Your task to perform on an android device: Go to location settings Image 0: 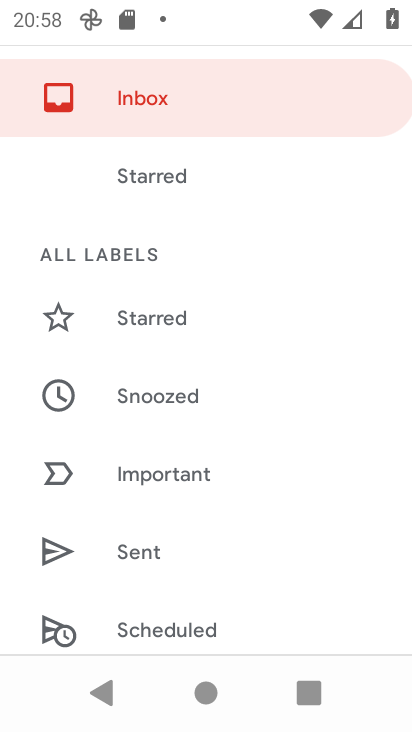
Step 0: drag from (279, 646) to (239, 299)
Your task to perform on an android device: Go to location settings Image 1: 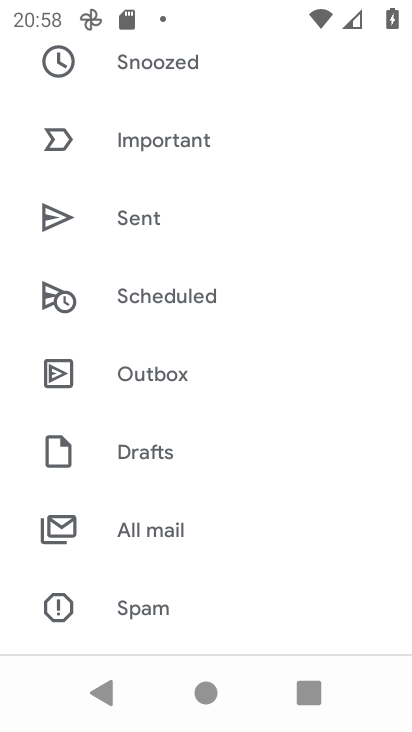
Step 1: press home button
Your task to perform on an android device: Go to location settings Image 2: 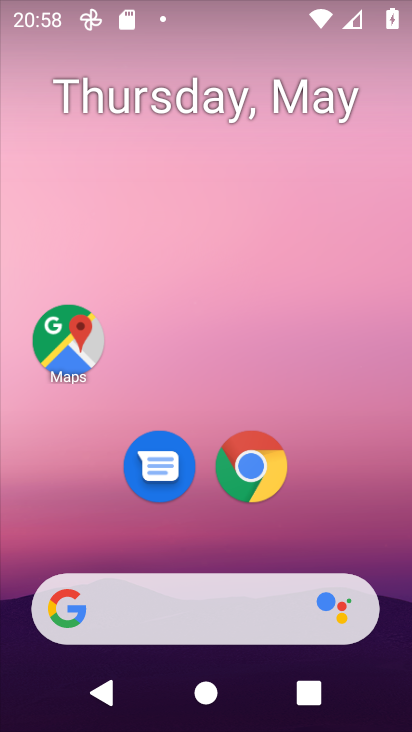
Step 2: drag from (359, 506) to (278, 49)
Your task to perform on an android device: Go to location settings Image 3: 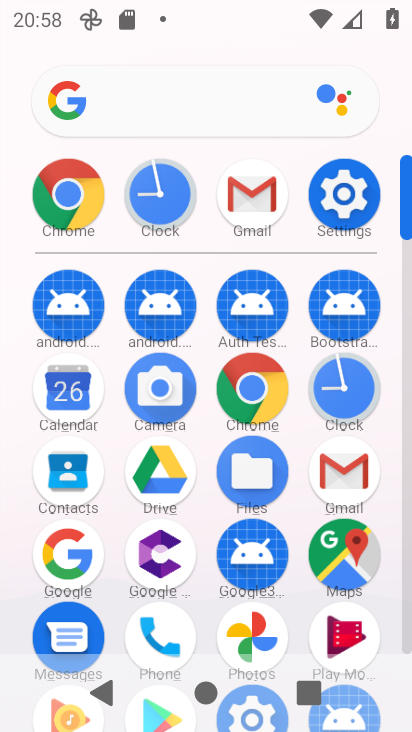
Step 3: click (331, 196)
Your task to perform on an android device: Go to location settings Image 4: 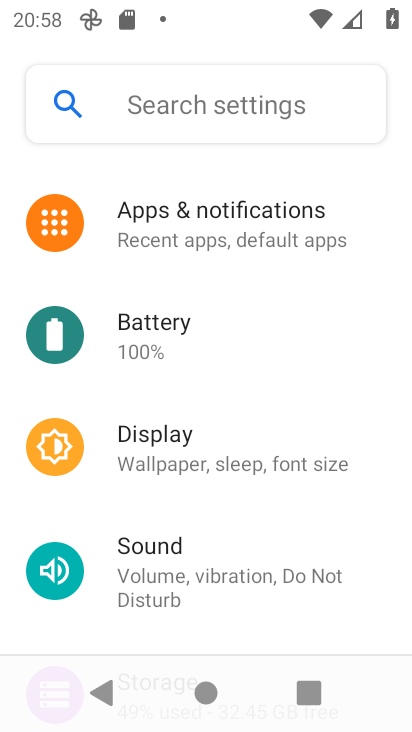
Step 4: drag from (219, 640) to (216, 491)
Your task to perform on an android device: Go to location settings Image 5: 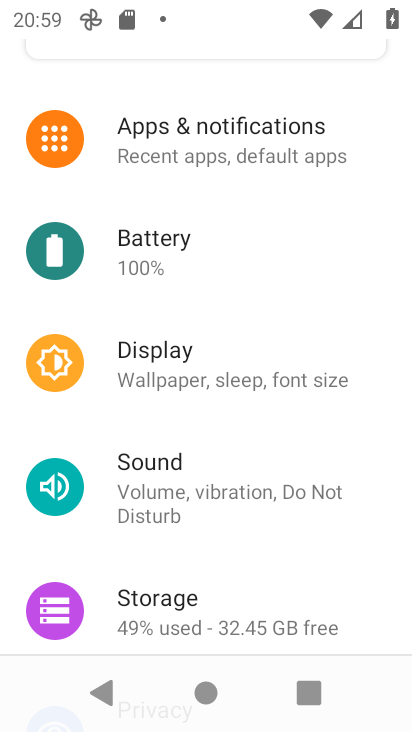
Step 5: drag from (225, 545) to (143, 192)
Your task to perform on an android device: Go to location settings Image 6: 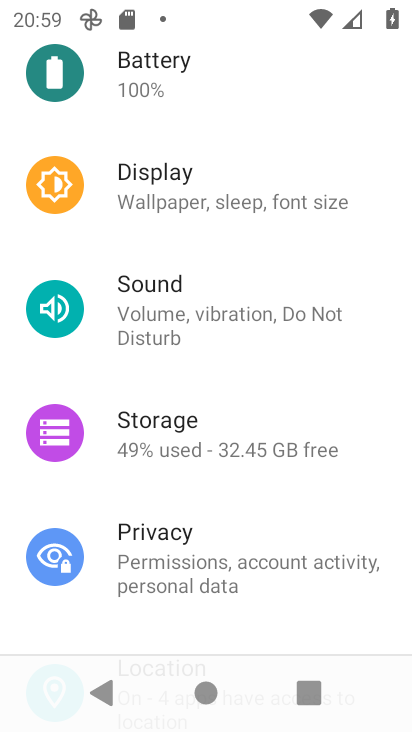
Step 6: drag from (199, 532) to (200, 405)
Your task to perform on an android device: Go to location settings Image 7: 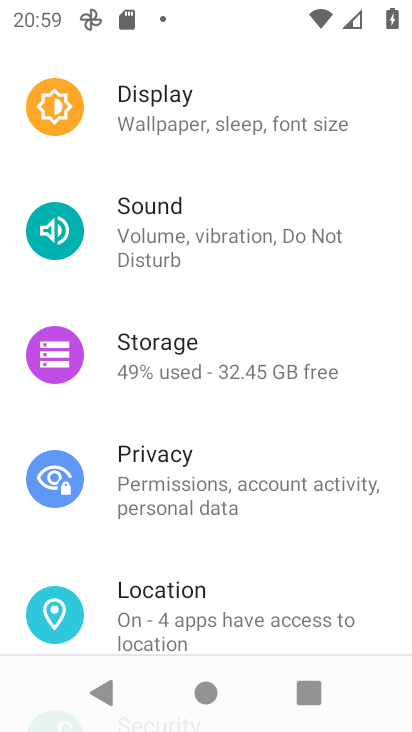
Step 7: click (178, 619)
Your task to perform on an android device: Go to location settings Image 8: 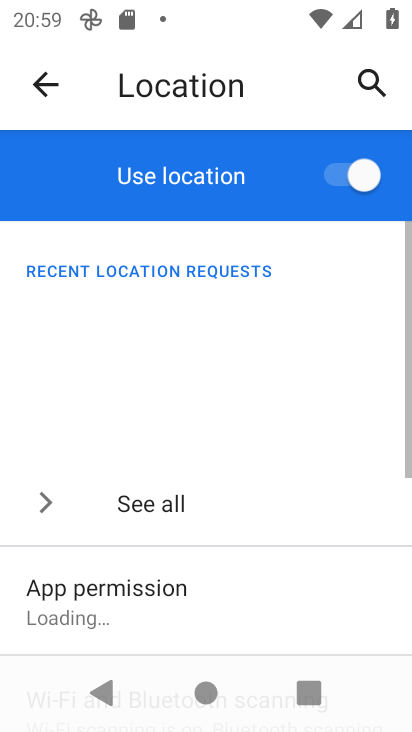
Step 8: task complete